Your task to perform on an android device: Clear the cart on costco. Add acer nitro to the cart on costco, then select checkout. Image 0: 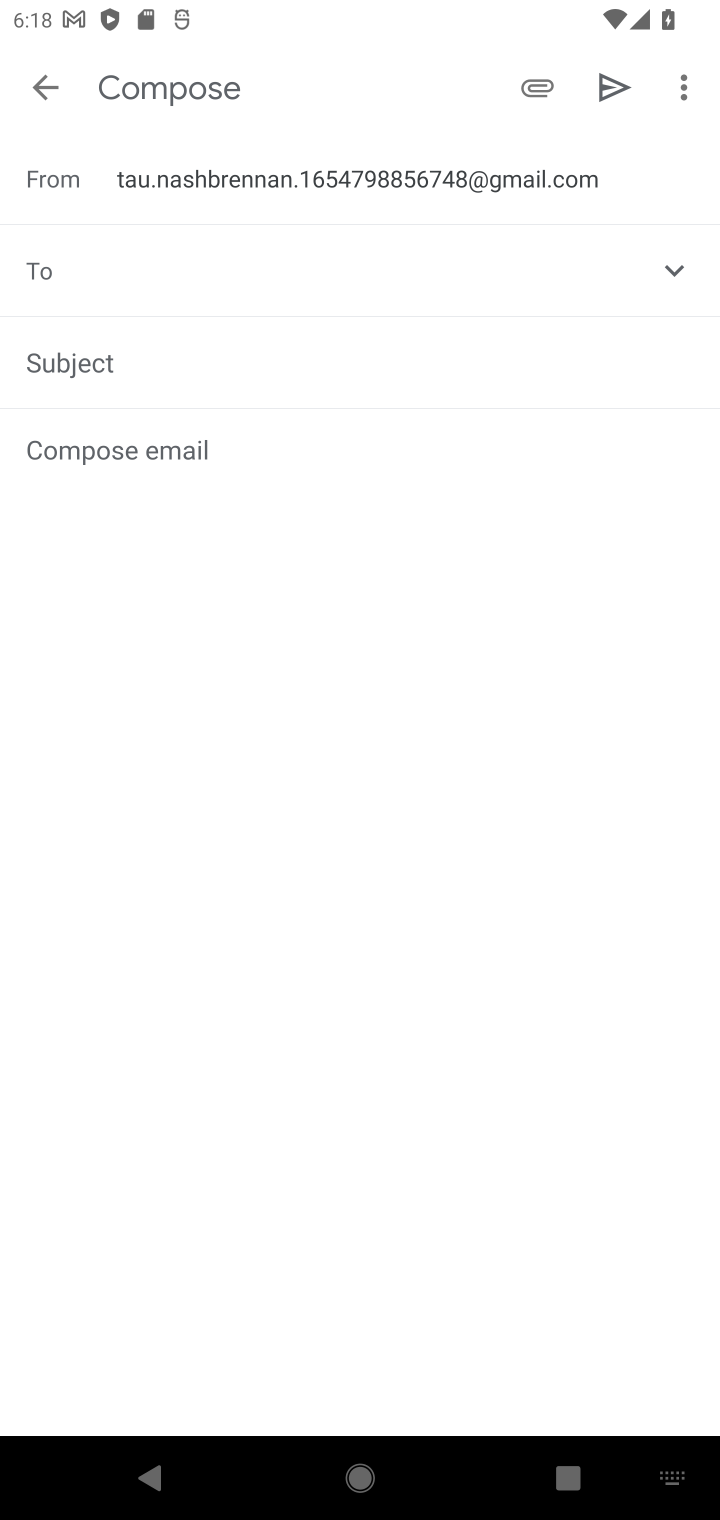
Step 0: press home button
Your task to perform on an android device: Clear the cart on costco. Add acer nitro to the cart on costco, then select checkout. Image 1: 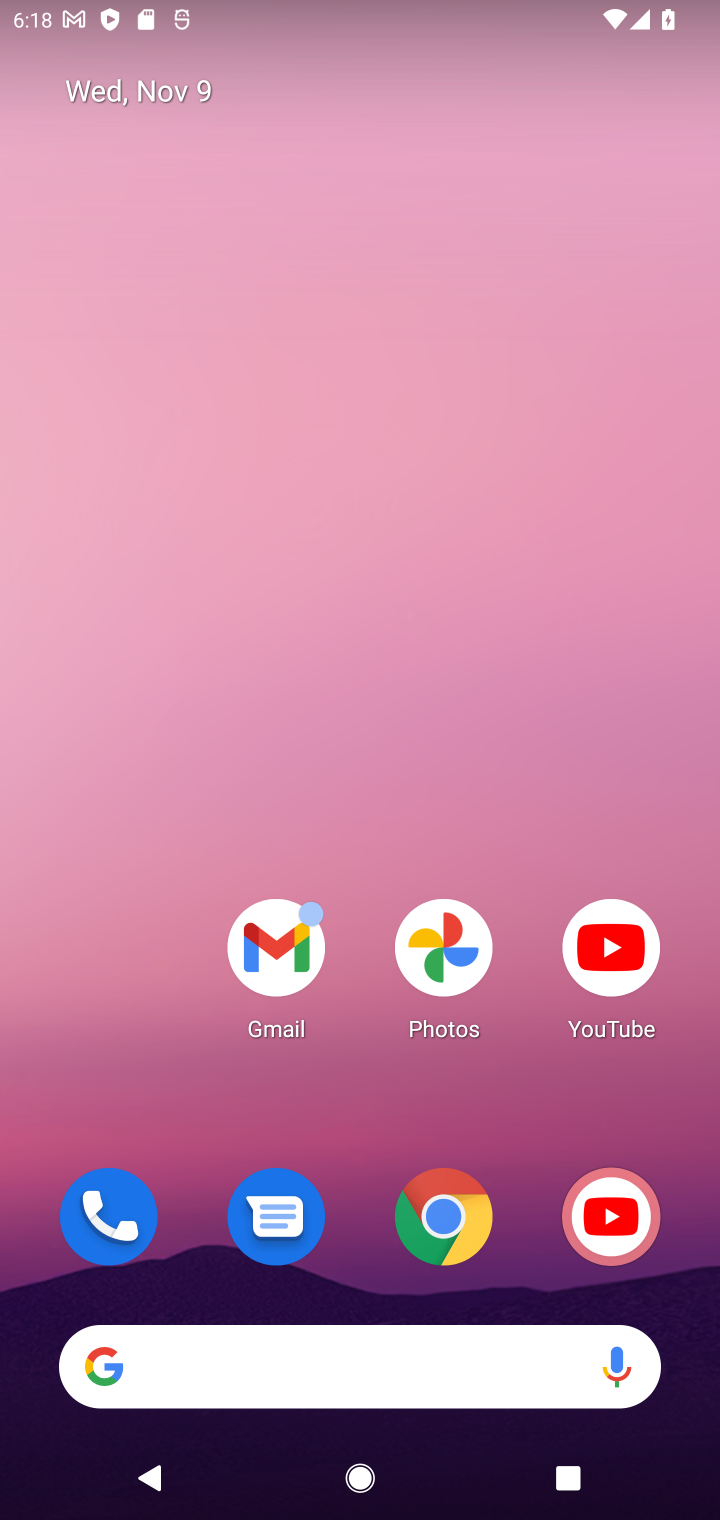
Step 1: drag from (335, 1082) to (462, 197)
Your task to perform on an android device: Clear the cart on costco. Add acer nitro to the cart on costco, then select checkout. Image 2: 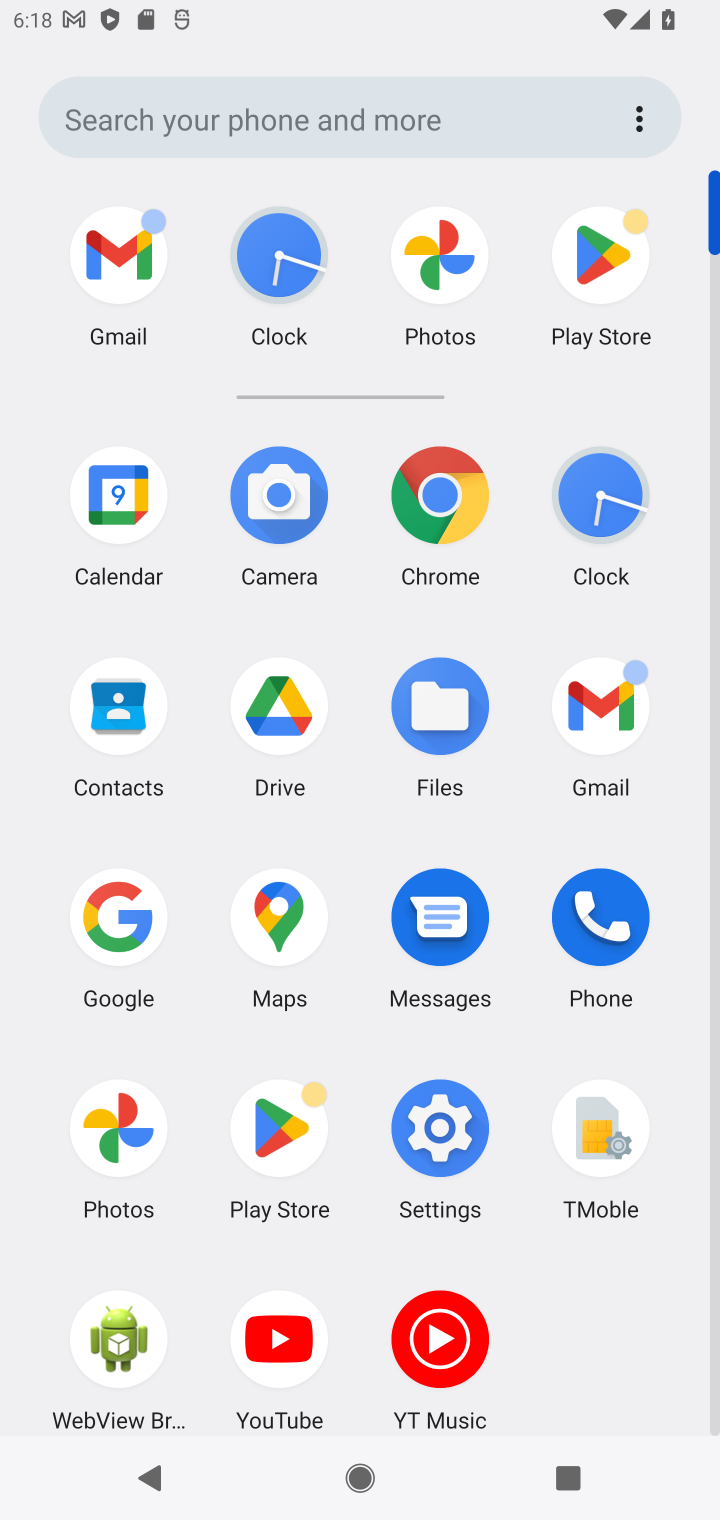
Step 2: click (449, 487)
Your task to perform on an android device: Clear the cart on costco. Add acer nitro to the cart on costco, then select checkout. Image 3: 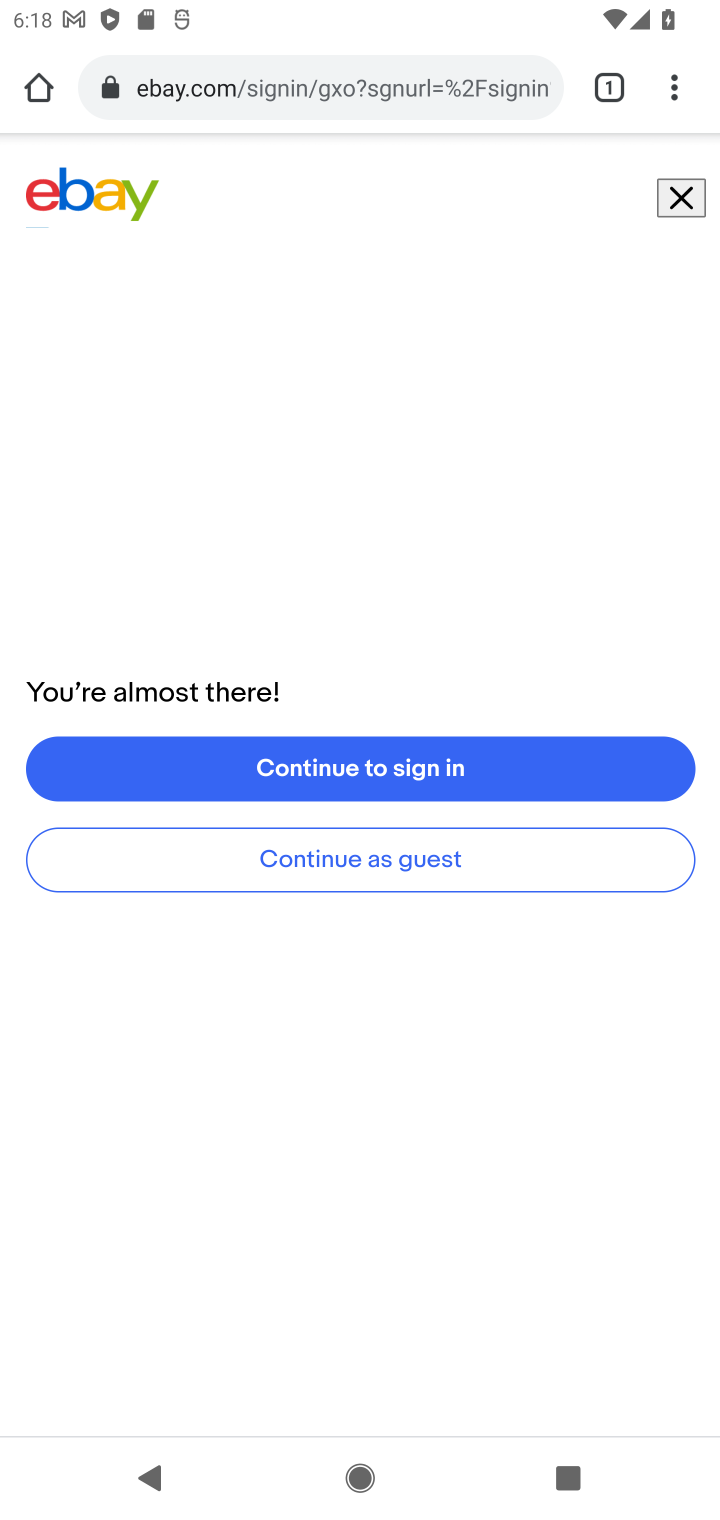
Step 3: click (303, 91)
Your task to perform on an android device: Clear the cart on costco. Add acer nitro to the cart on costco, then select checkout. Image 4: 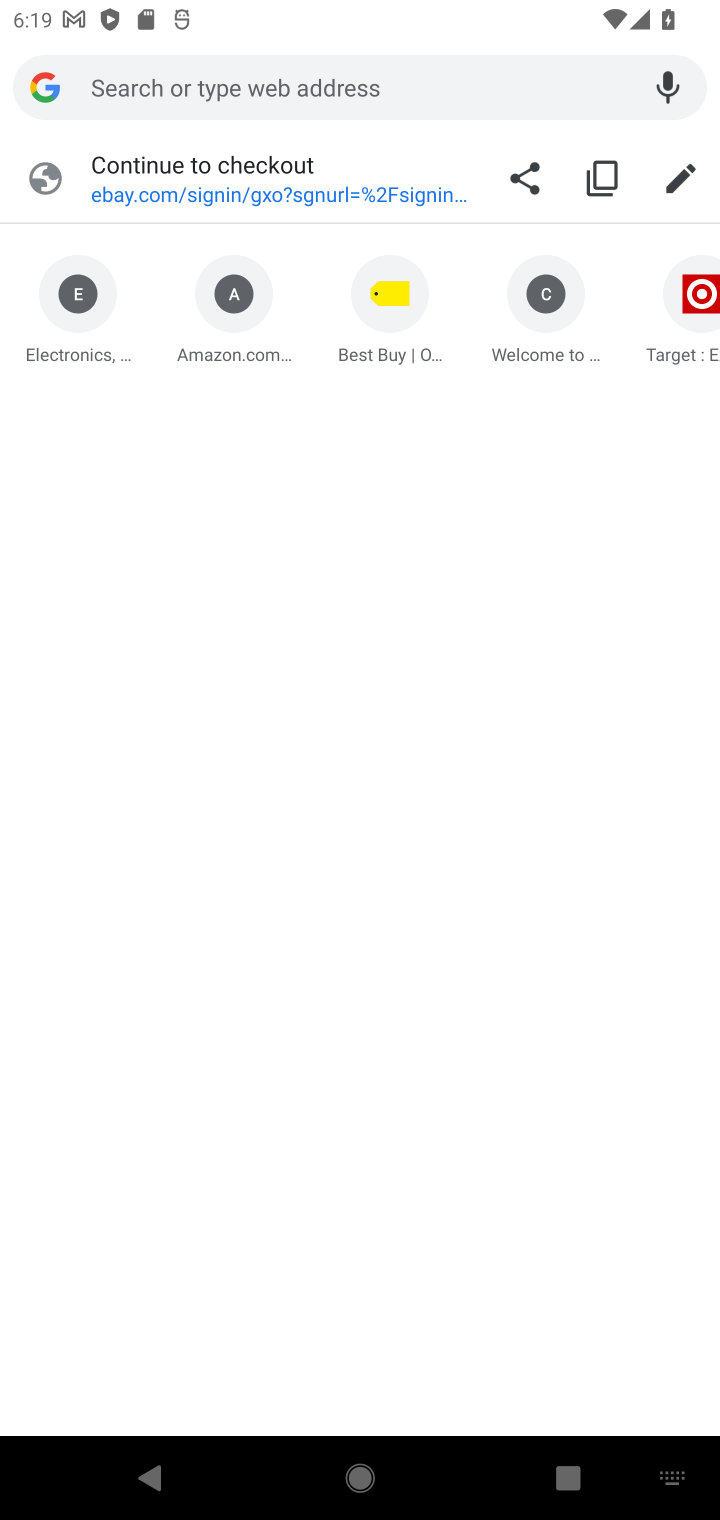
Step 4: type "costco.com"
Your task to perform on an android device: Clear the cart on costco. Add acer nitro to the cart on costco, then select checkout. Image 5: 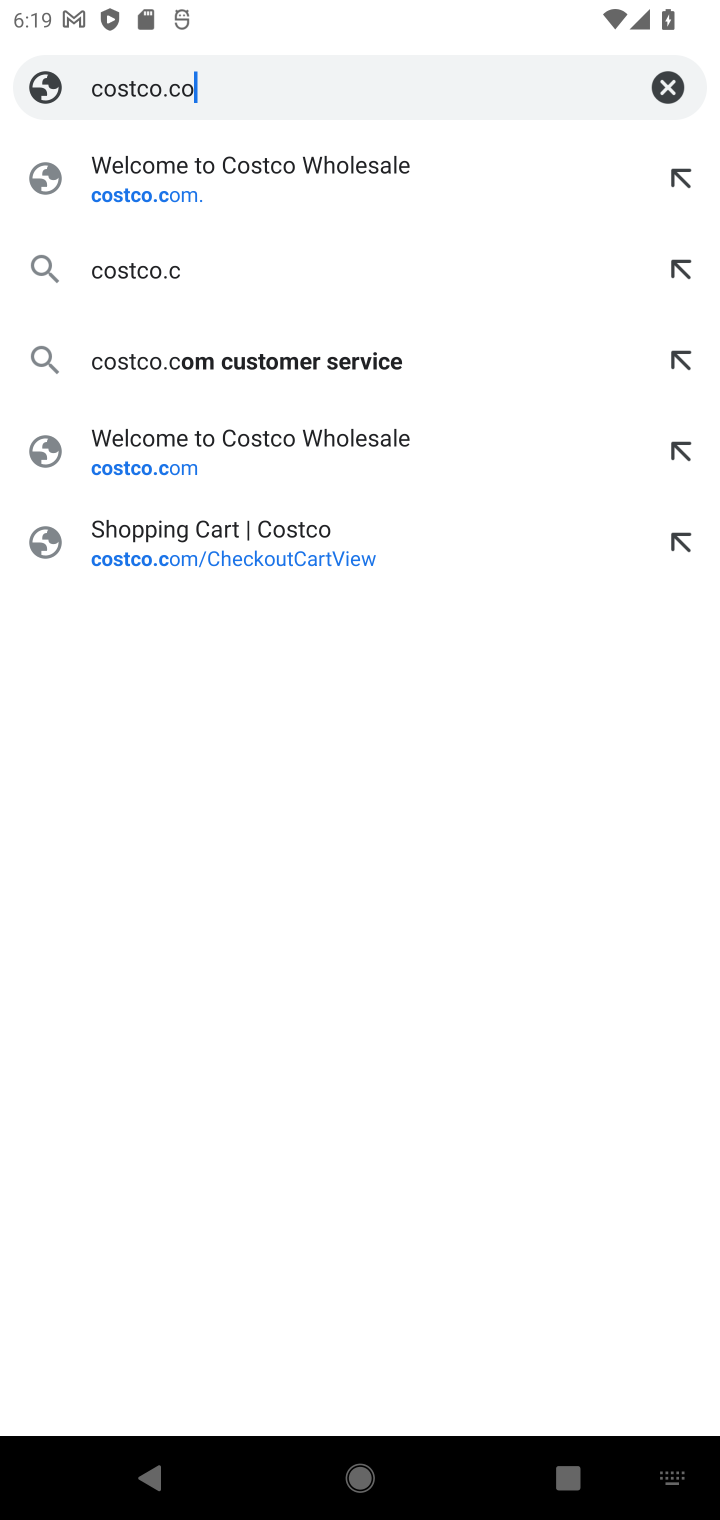
Step 5: press enter
Your task to perform on an android device: Clear the cart on costco. Add acer nitro to the cart on costco, then select checkout. Image 6: 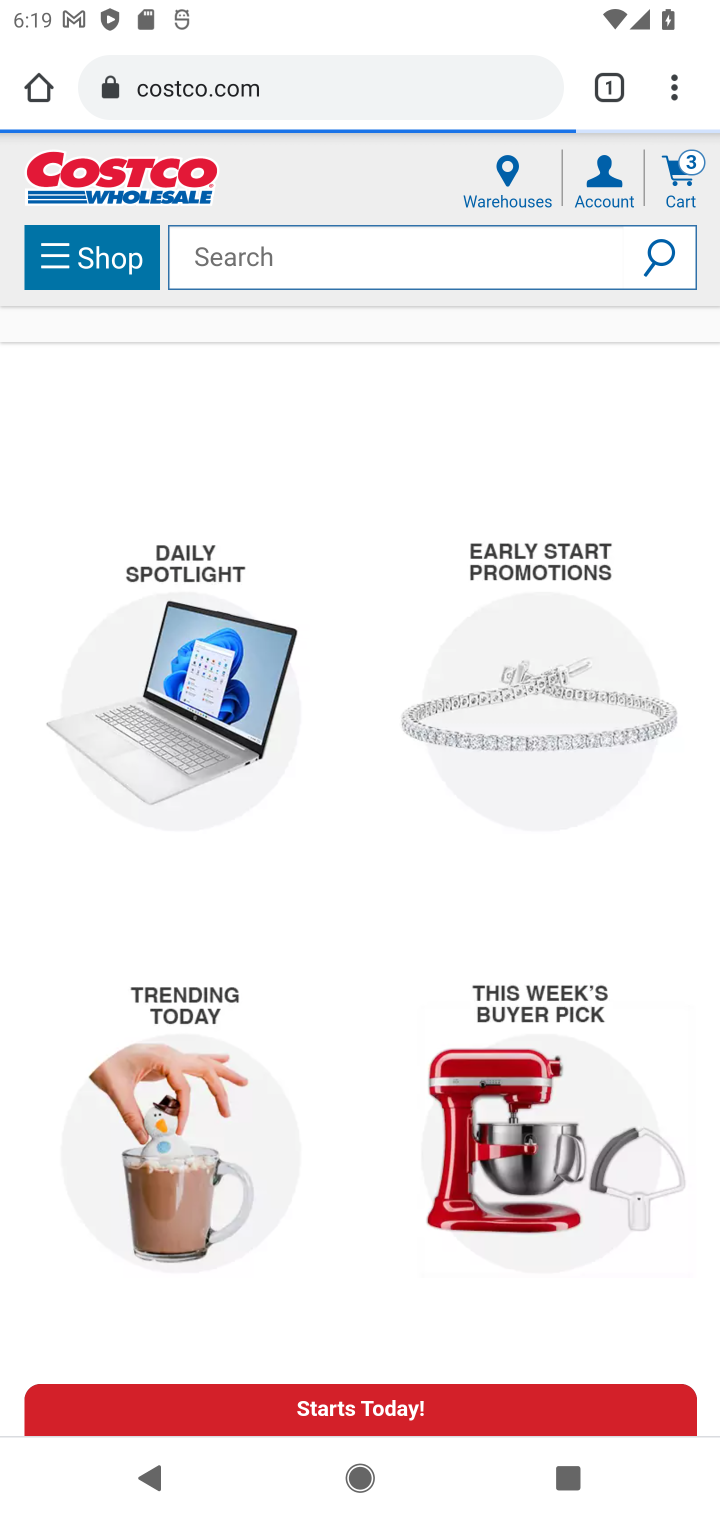
Step 6: click (676, 168)
Your task to perform on an android device: Clear the cart on costco. Add acer nitro to the cart on costco, then select checkout. Image 7: 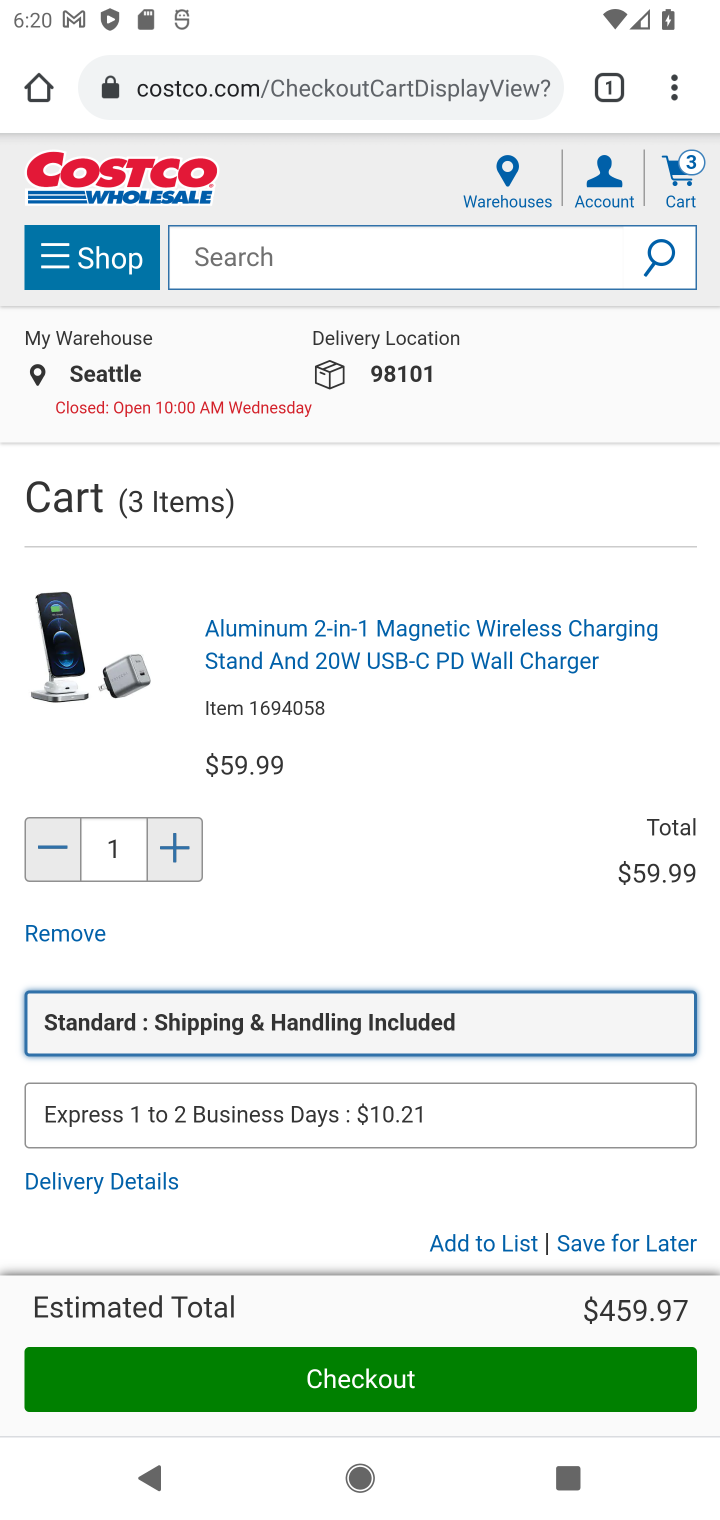
Step 7: click (71, 930)
Your task to perform on an android device: Clear the cart on costco. Add acer nitro to the cart on costco, then select checkout. Image 8: 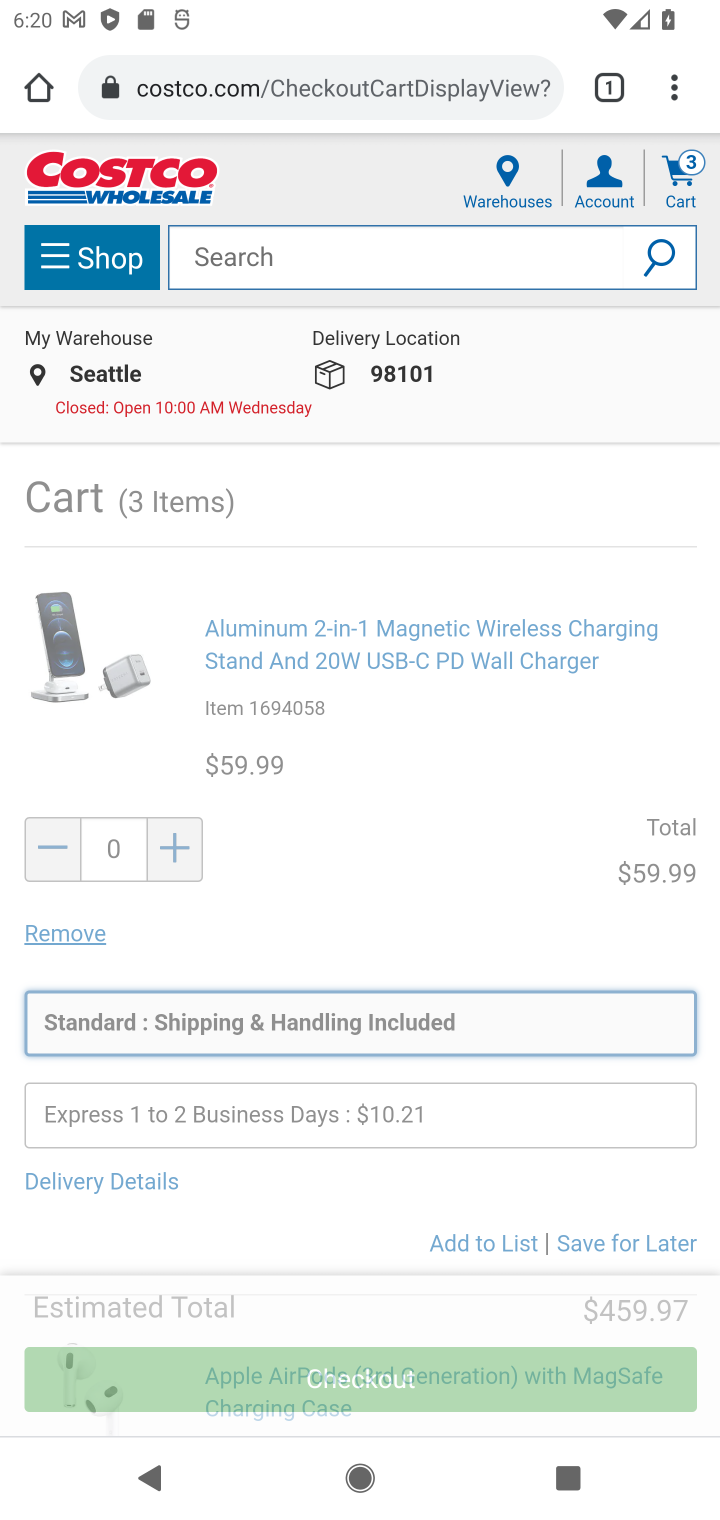
Step 8: click (67, 928)
Your task to perform on an android device: Clear the cart on costco. Add acer nitro to the cart on costco, then select checkout. Image 9: 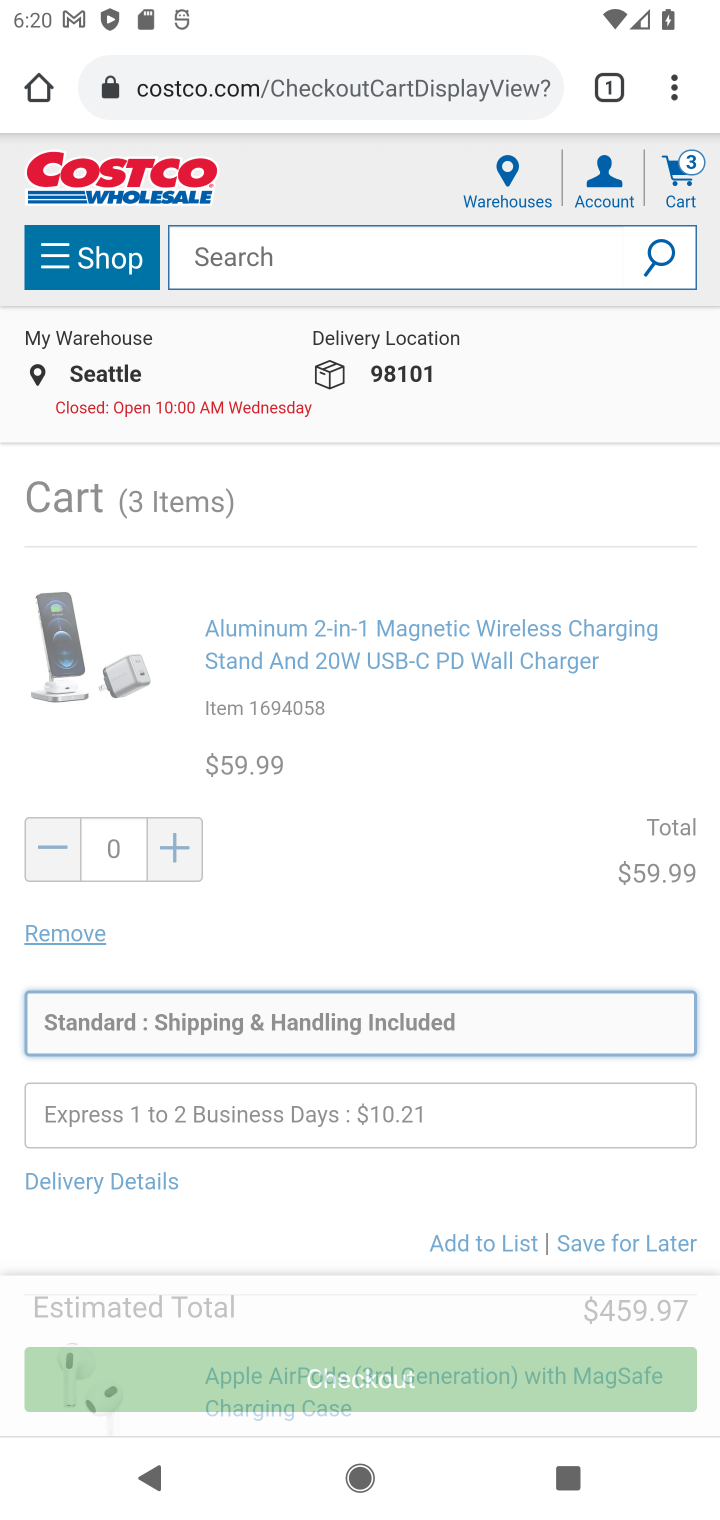
Step 9: click (67, 928)
Your task to perform on an android device: Clear the cart on costco. Add acer nitro to the cart on costco, then select checkout. Image 10: 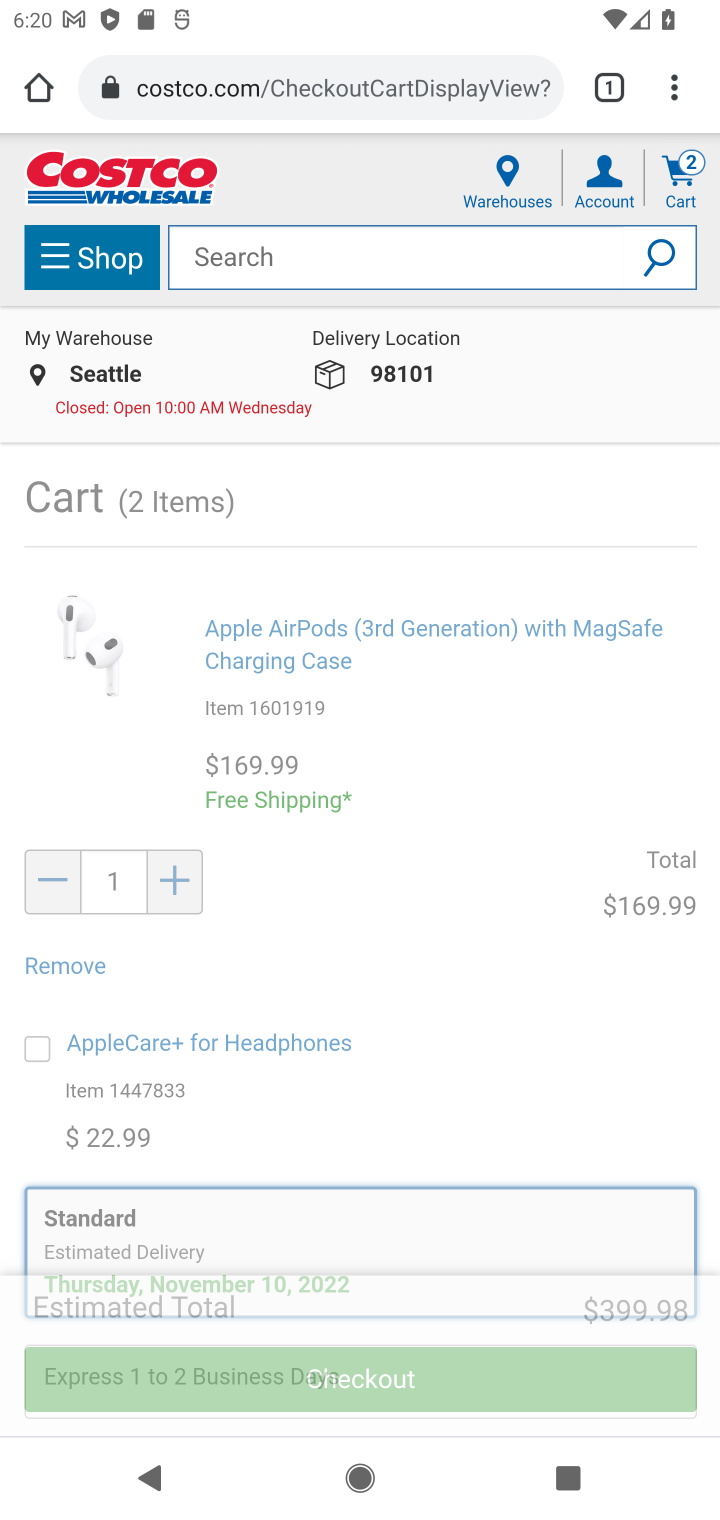
Step 10: click (67, 928)
Your task to perform on an android device: Clear the cart on costco. Add acer nitro to the cart on costco, then select checkout. Image 11: 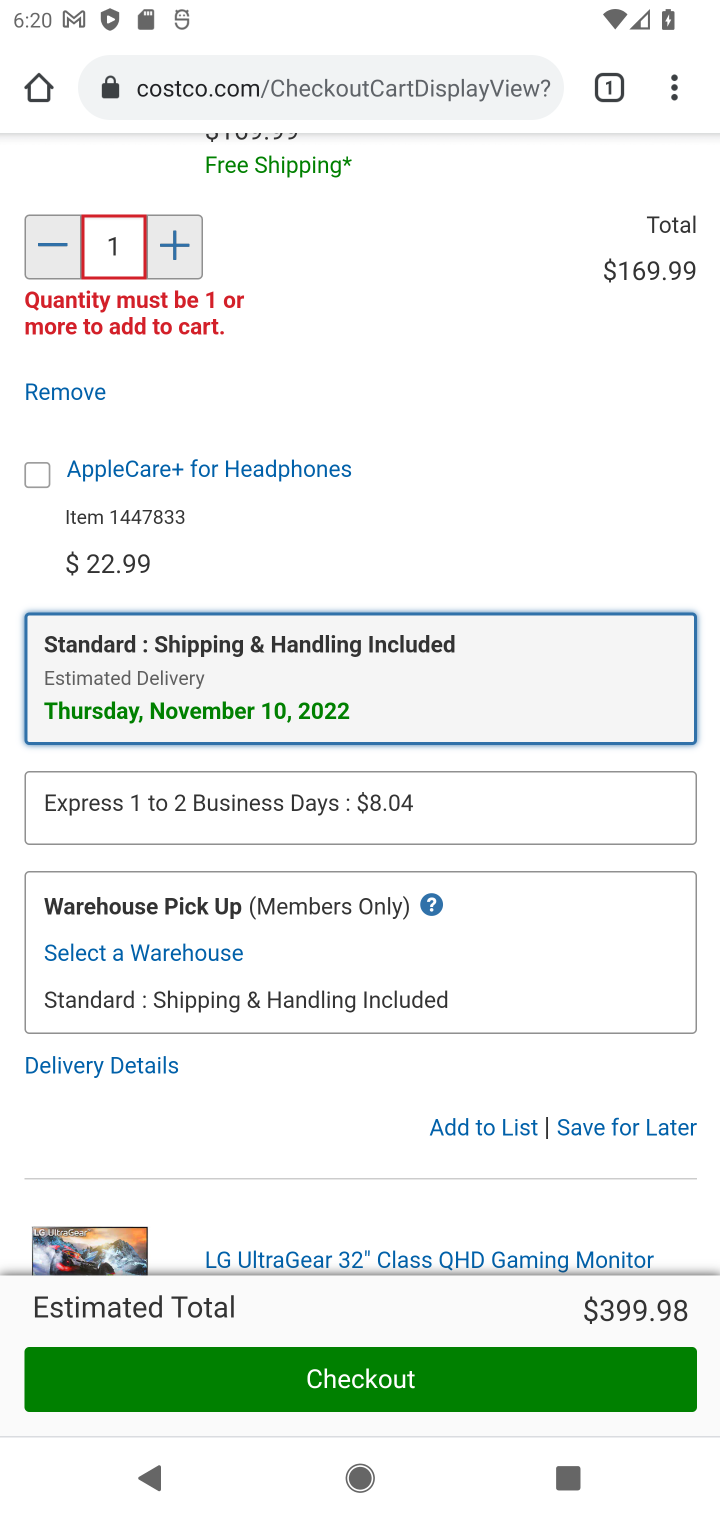
Step 11: click (65, 388)
Your task to perform on an android device: Clear the cart on costco. Add acer nitro to the cart on costco, then select checkout. Image 12: 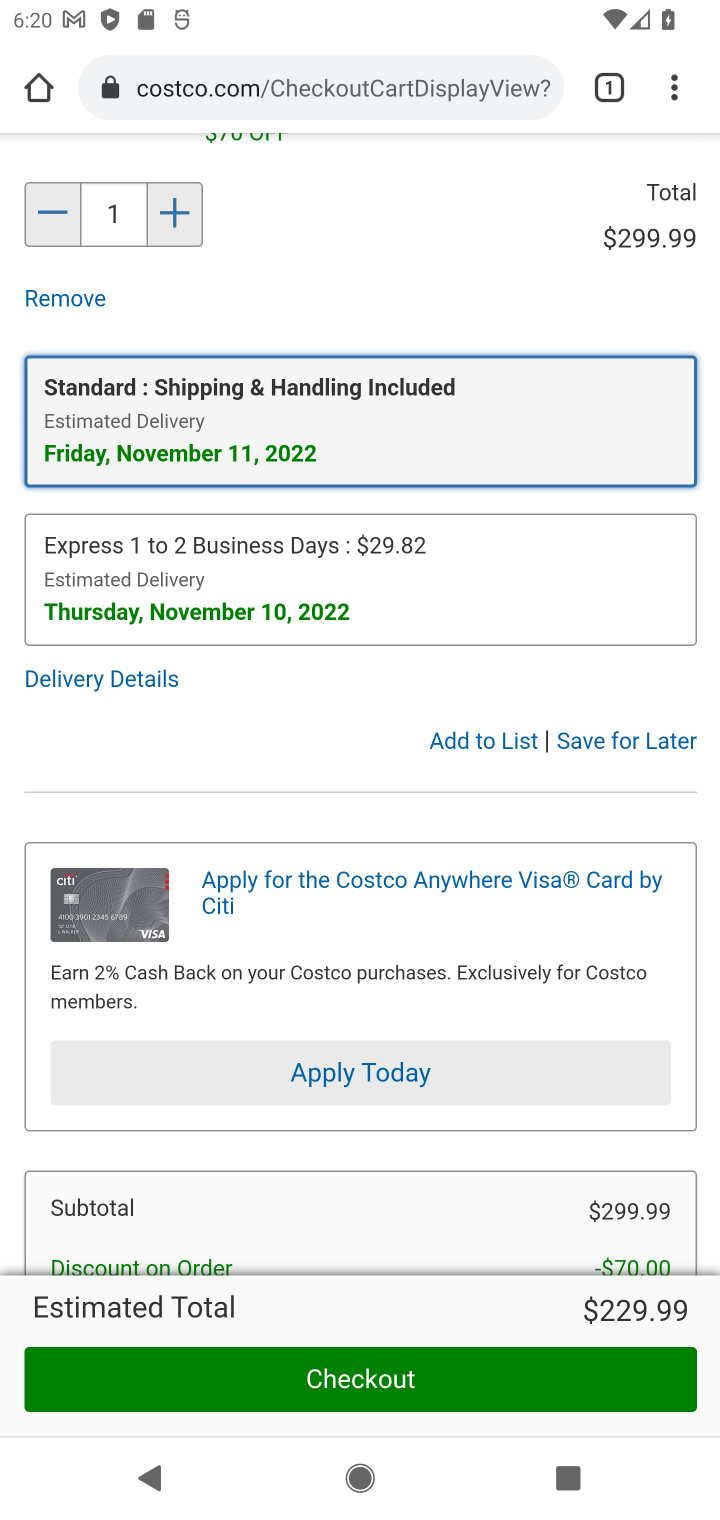
Step 12: click (66, 290)
Your task to perform on an android device: Clear the cart on costco. Add acer nitro to the cart on costco, then select checkout. Image 13: 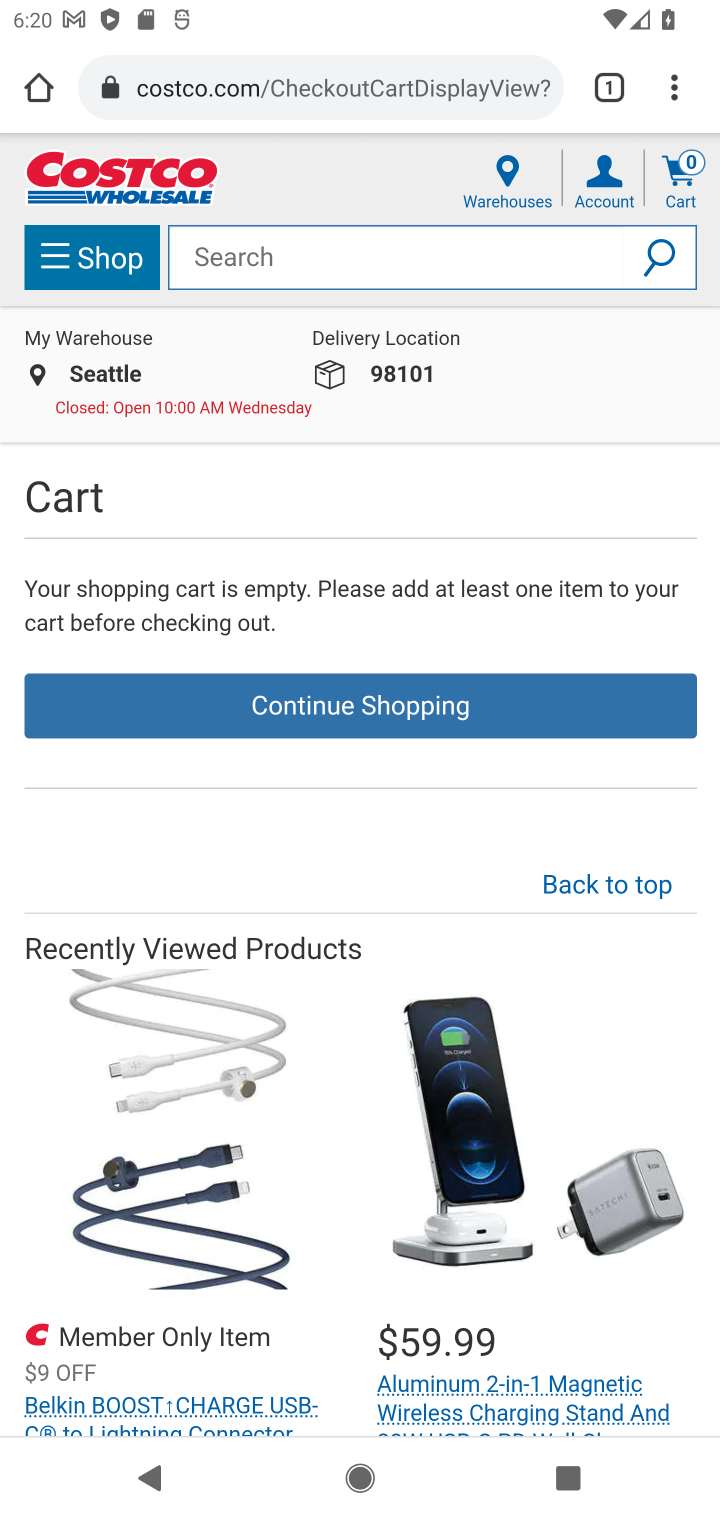
Step 13: click (468, 235)
Your task to perform on an android device: Clear the cart on costco. Add acer nitro to the cart on costco, then select checkout. Image 14: 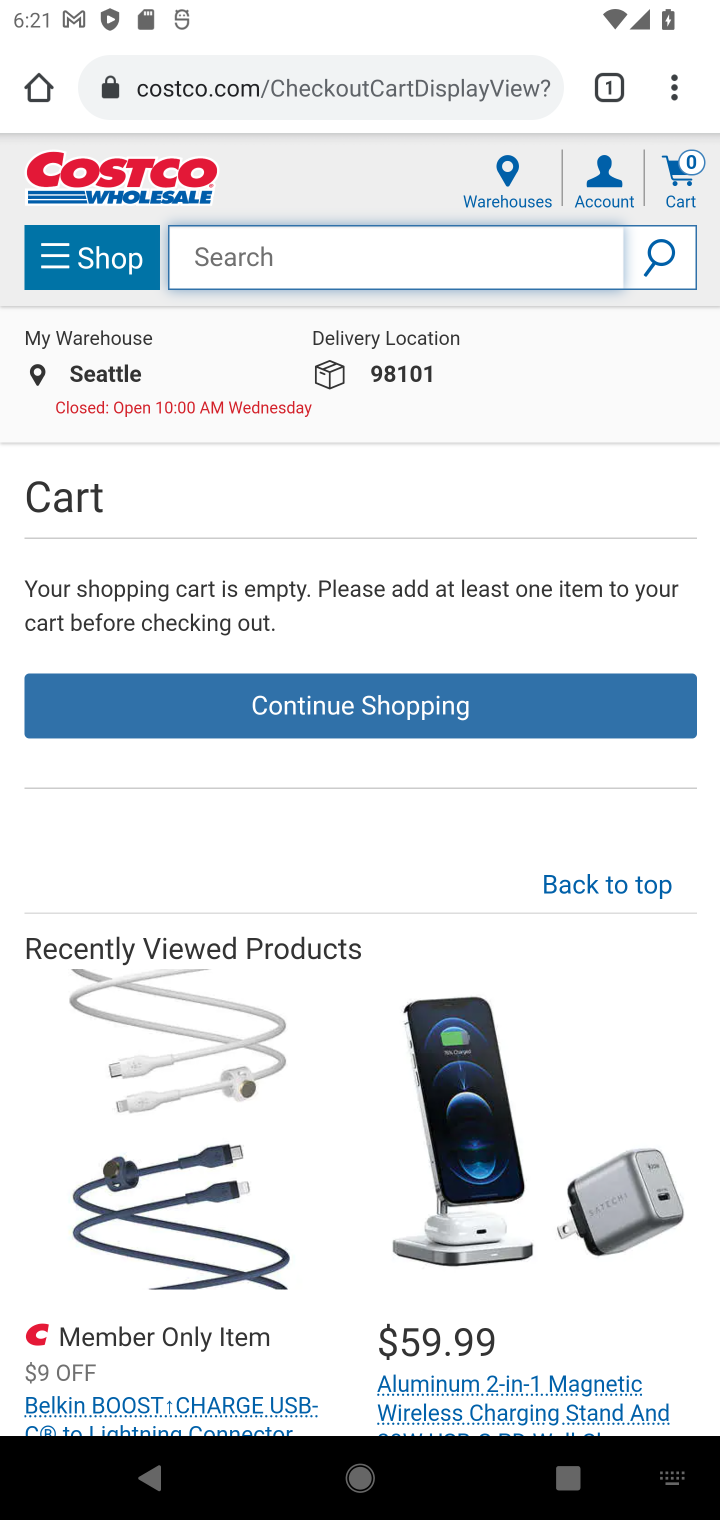
Step 14: click (406, 267)
Your task to perform on an android device: Clear the cart on costco. Add acer nitro to the cart on costco, then select checkout. Image 15: 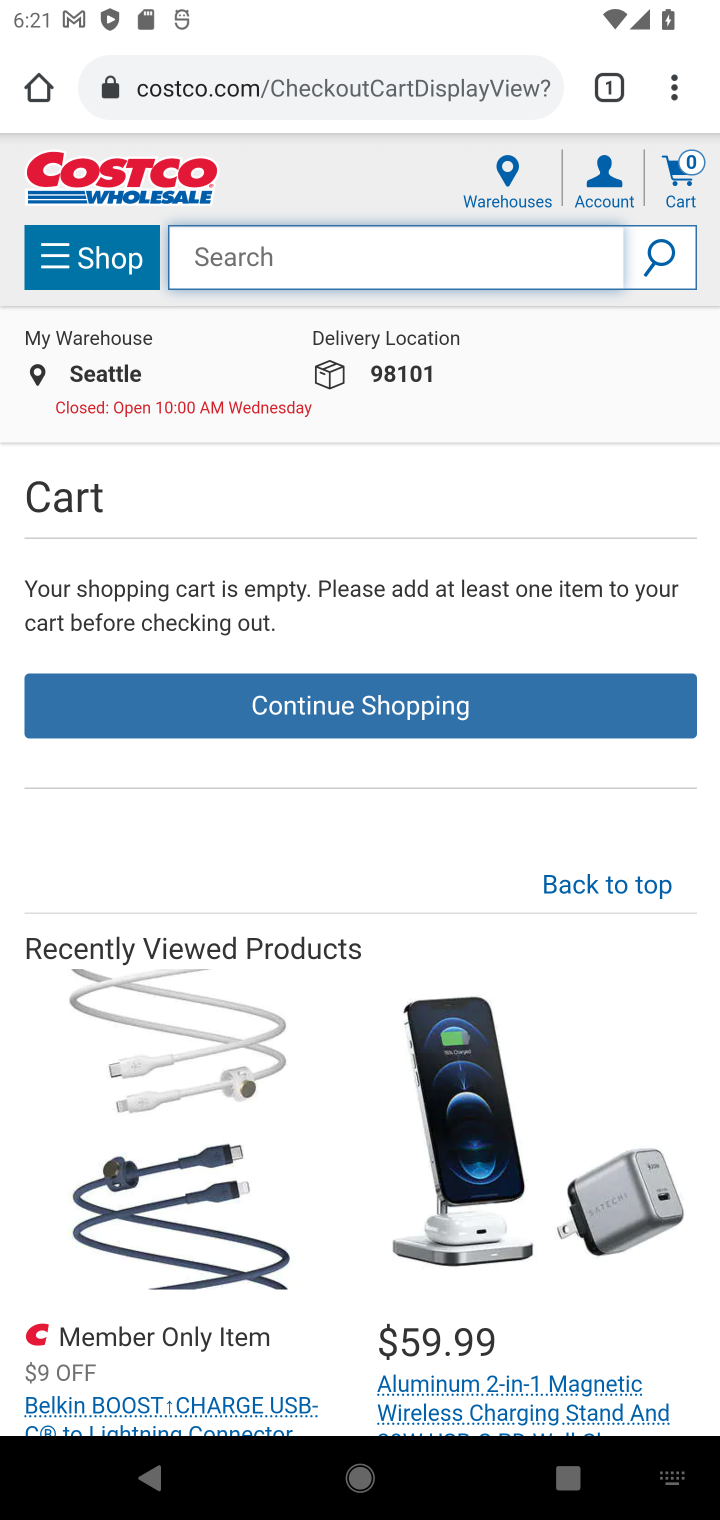
Step 15: type "acer nitro"
Your task to perform on an android device: Clear the cart on costco. Add acer nitro to the cart on costco, then select checkout. Image 16: 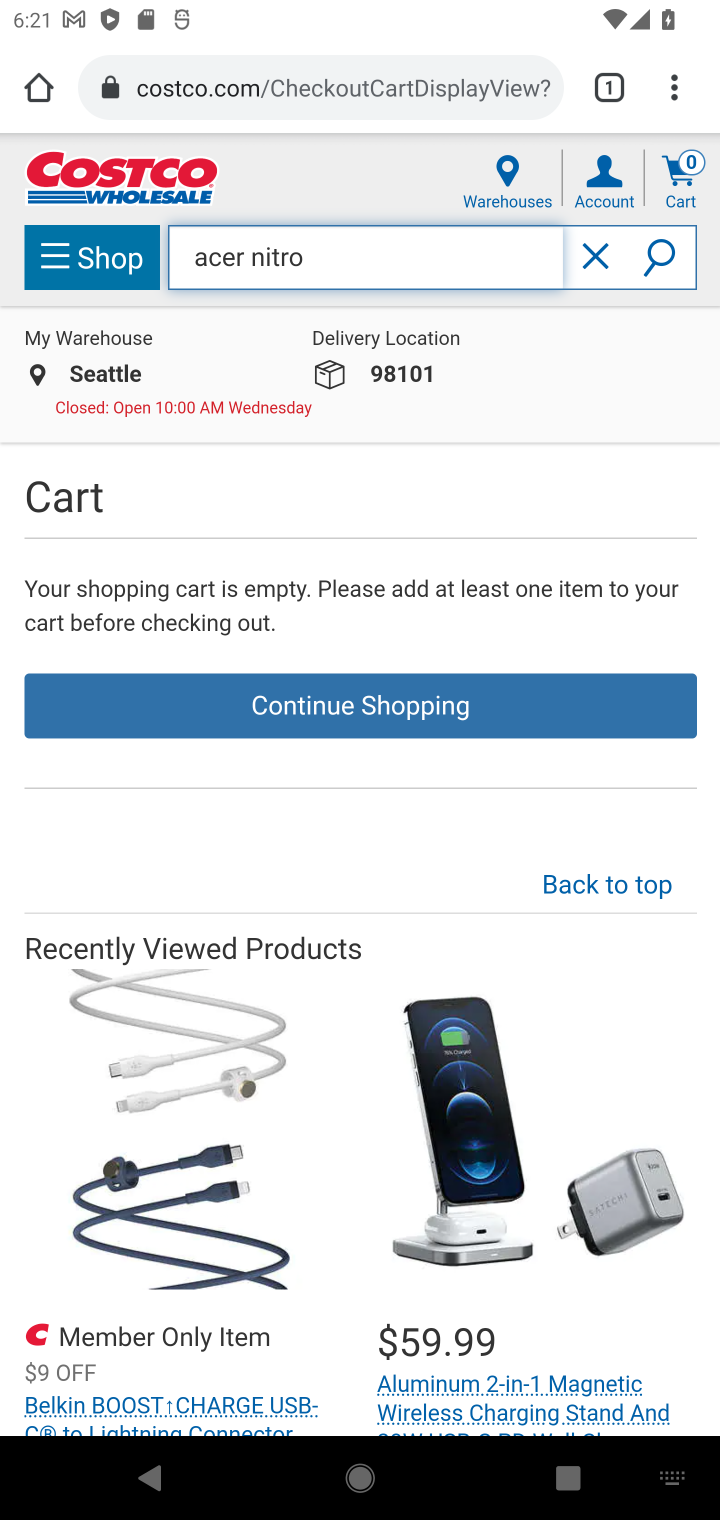
Step 16: press enter
Your task to perform on an android device: Clear the cart on costco. Add acer nitro to the cart on costco, then select checkout. Image 17: 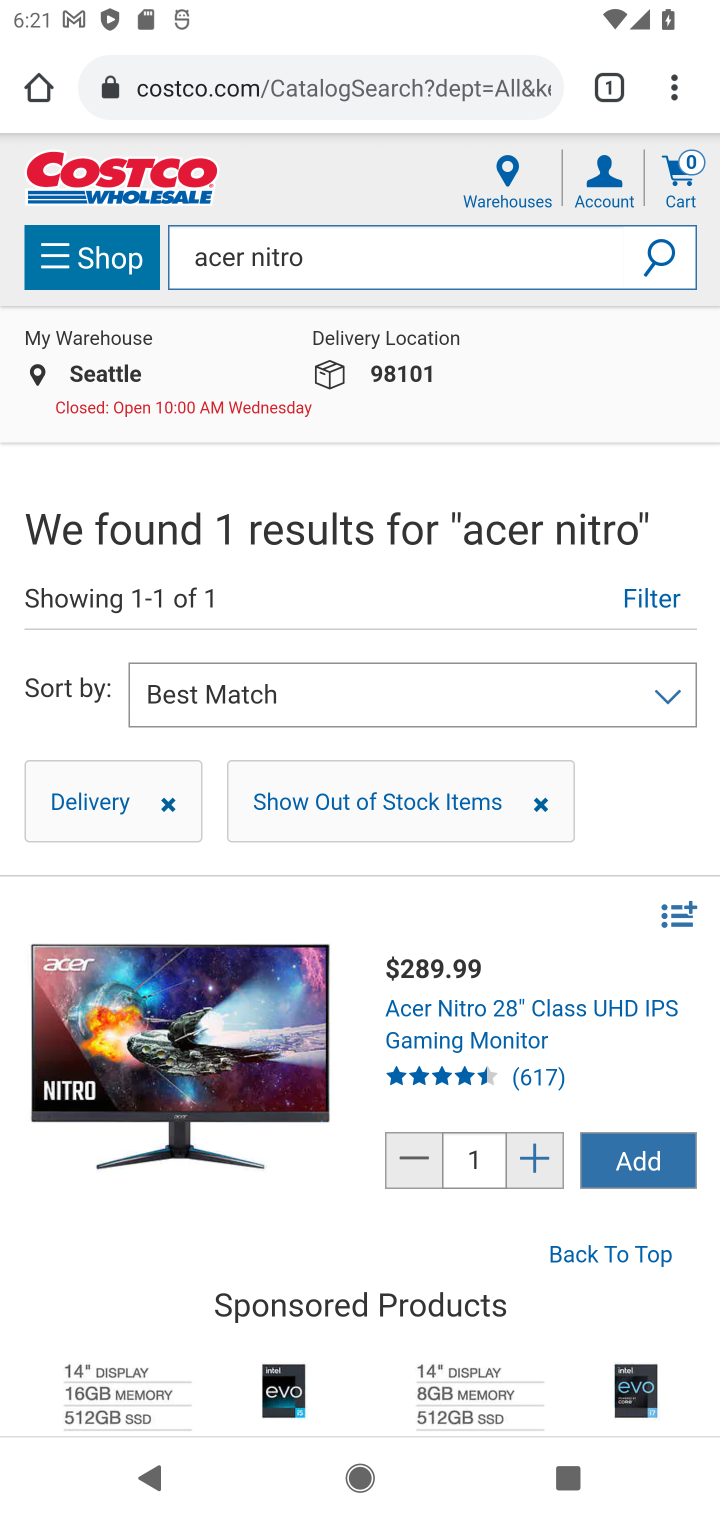
Step 17: click (653, 1146)
Your task to perform on an android device: Clear the cart on costco. Add acer nitro to the cart on costco, then select checkout. Image 18: 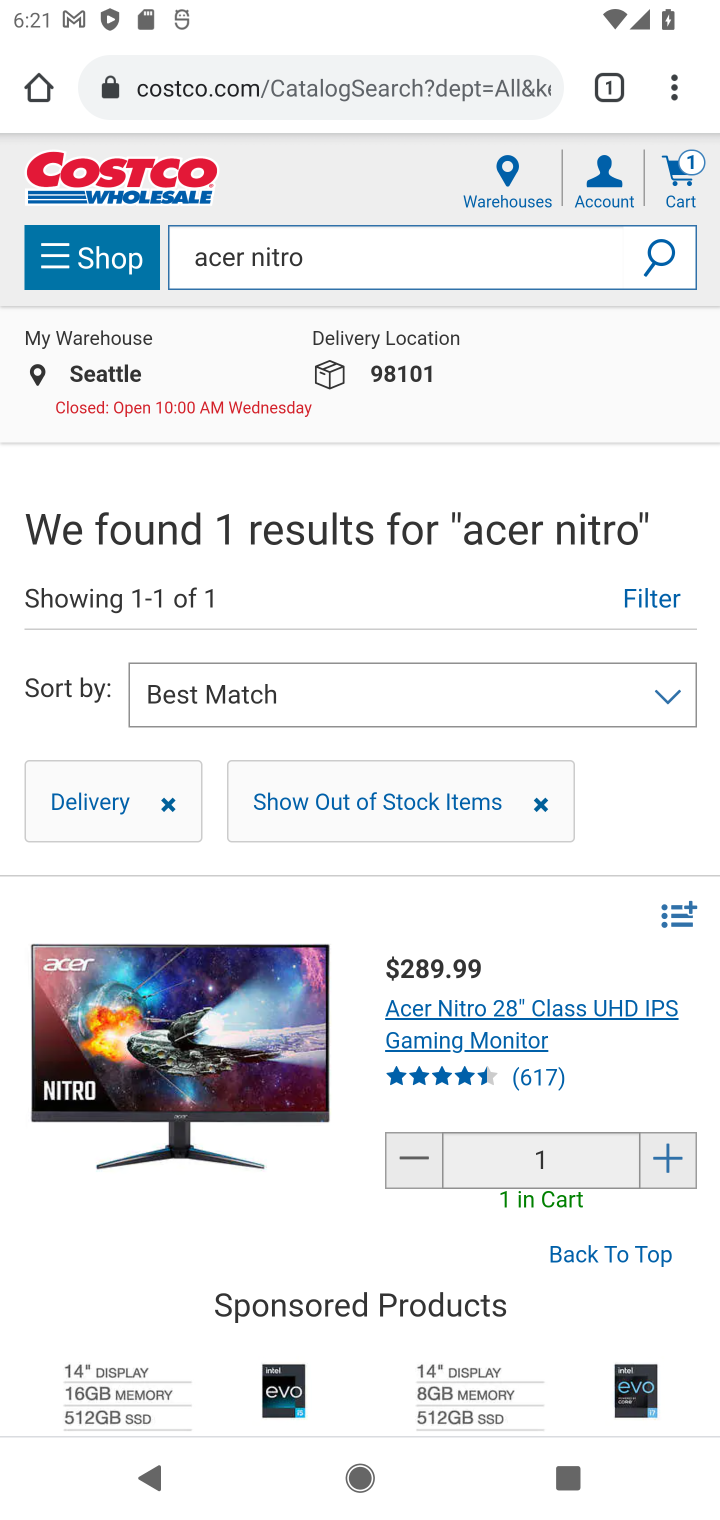
Step 18: click (675, 157)
Your task to perform on an android device: Clear the cart on costco. Add acer nitro to the cart on costco, then select checkout. Image 19: 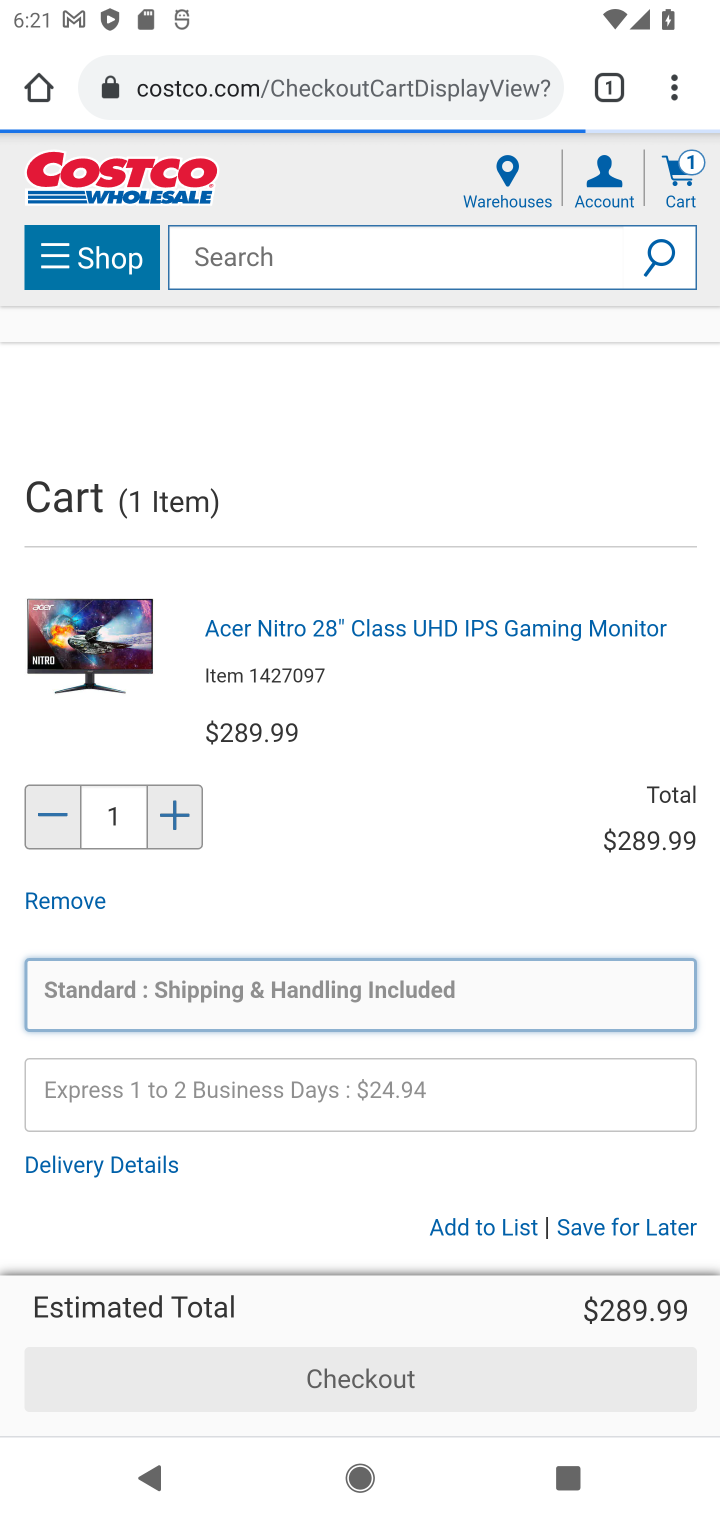
Step 19: drag from (291, 1192) to (353, 493)
Your task to perform on an android device: Clear the cart on costco. Add acer nitro to the cart on costco, then select checkout. Image 20: 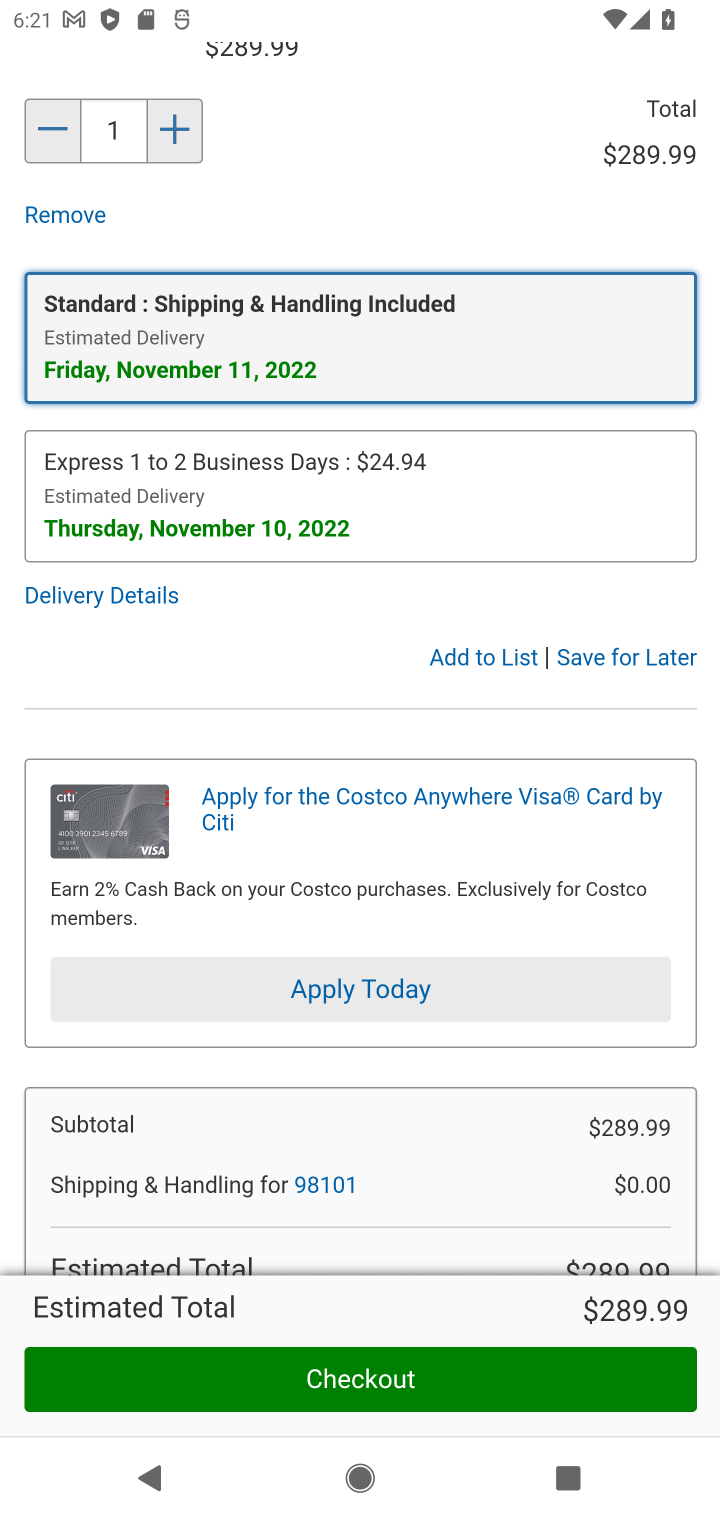
Step 20: click (417, 1373)
Your task to perform on an android device: Clear the cart on costco. Add acer nitro to the cart on costco, then select checkout. Image 21: 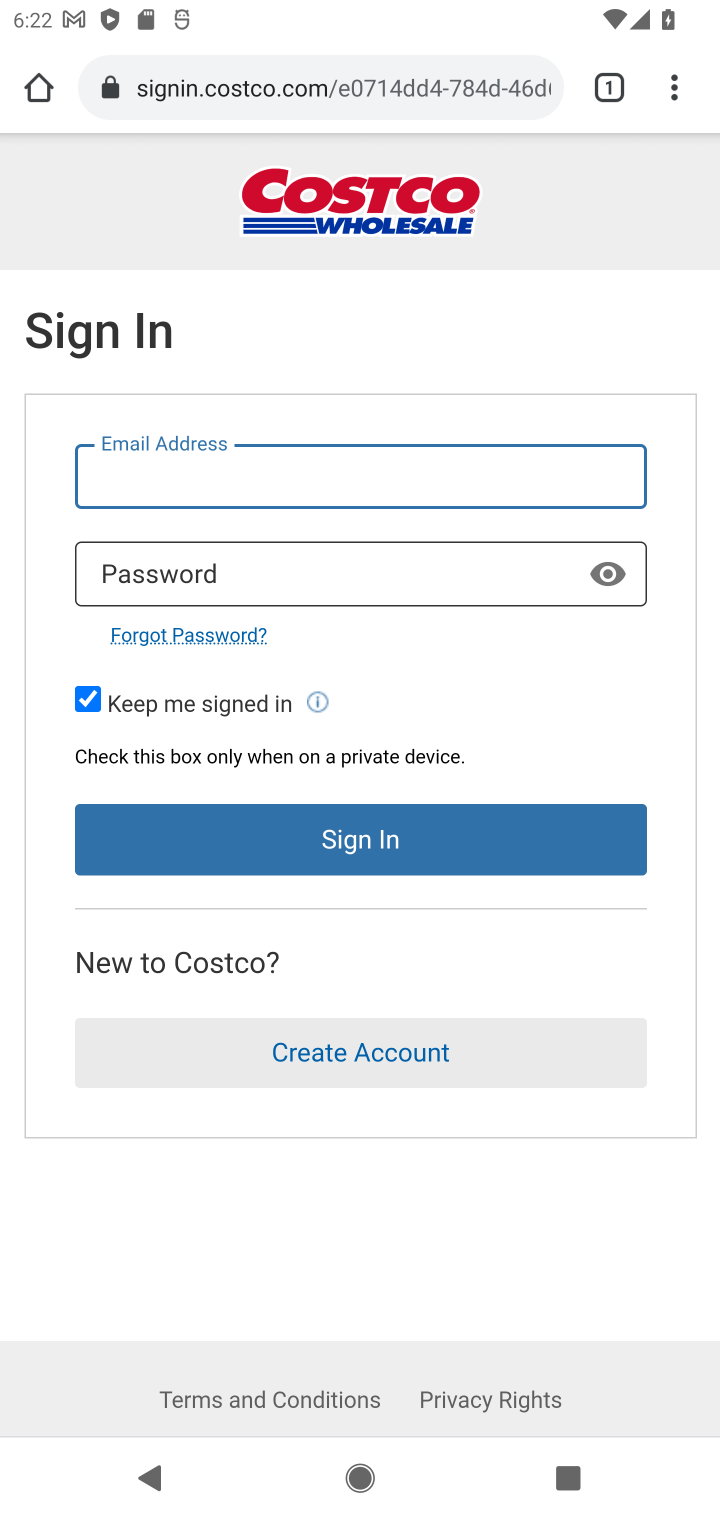
Step 21: task complete